Your task to perform on an android device: turn off notifications settings in the gmail app Image 0: 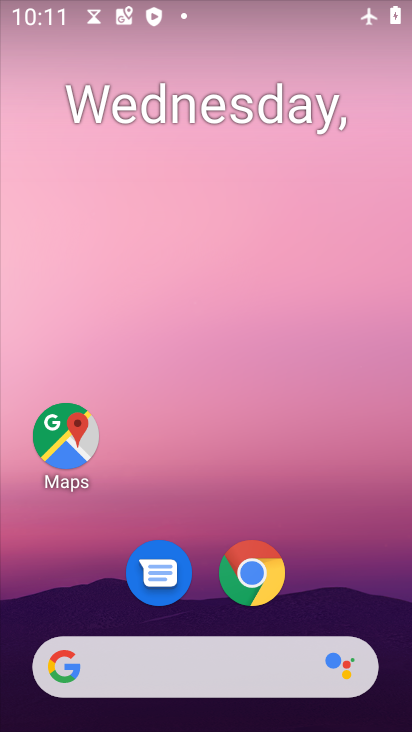
Step 0: drag from (336, 465) to (305, 238)
Your task to perform on an android device: turn off notifications settings in the gmail app Image 1: 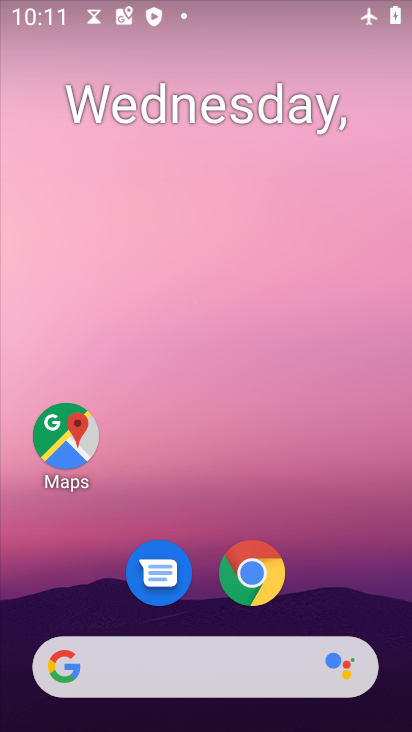
Step 1: drag from (301, 506) to (322, 120)
Your task to perform on an android device: turn off notifications settings in the gmail app Image 2: 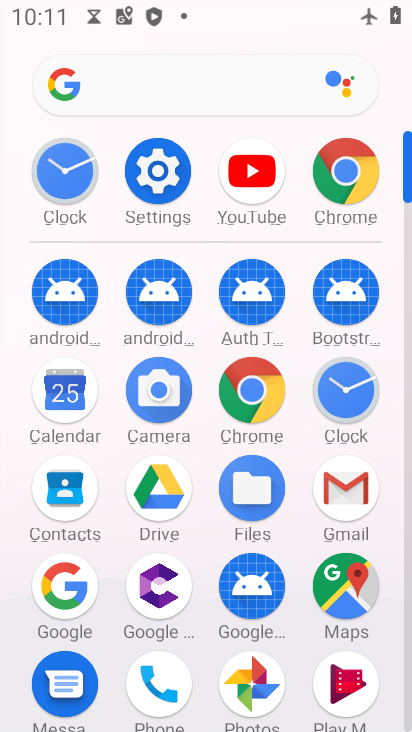
Step 2: click (342, 474)
Your task to perform on an android device: turn off notifications settings in the gmail app Image 3: 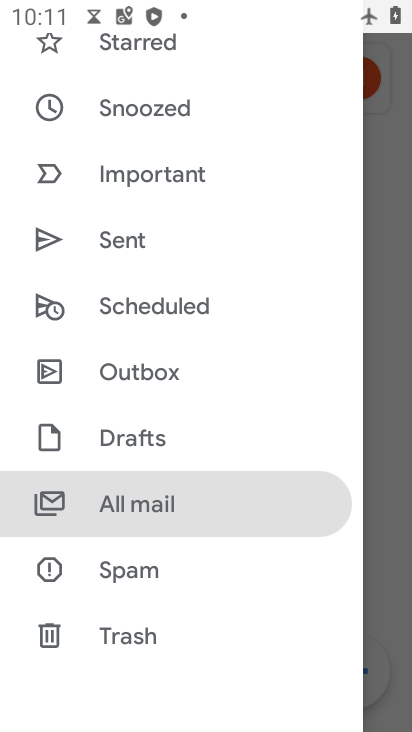
Step 3: drag from (125, 584) to (172, 171)
Your task to perform on an android device: turn off notifications settings in the gmail app Image 4: 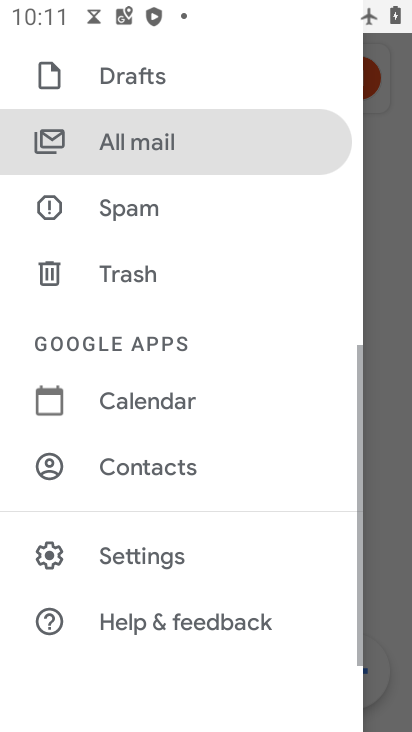
Step 4: click (152, 557)
Your task to perform on an android device: turn off notifications settings in the gmail app Image 5: 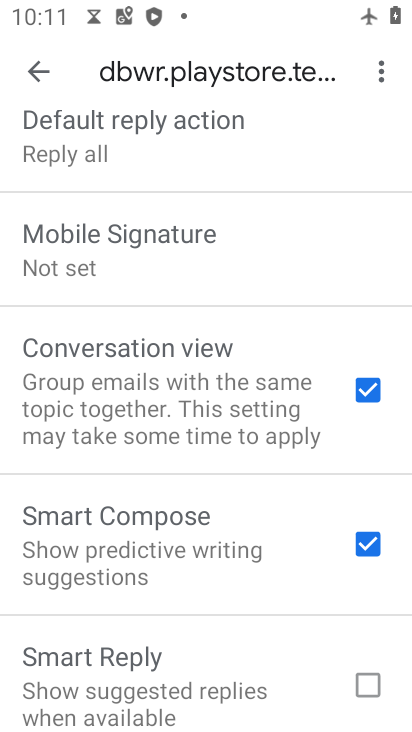
Step 5: drag from (207, 192) to (176, 571)
Your task to perform on an android device: turn off notifications settings in the gmail app Image 6: 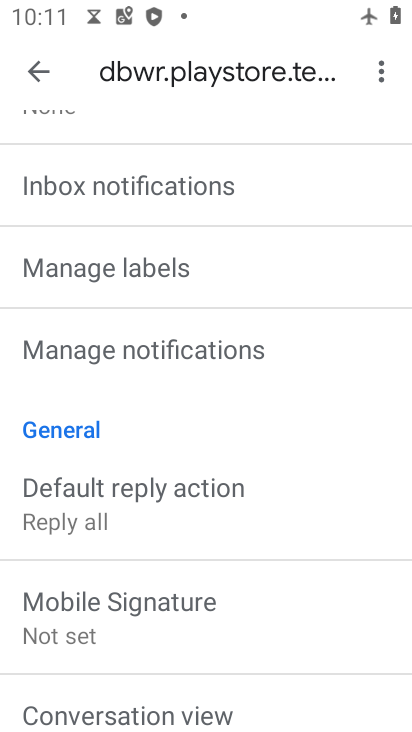
Step 6: drag from (162, 322) to (162, 523)
Your task to perform on an android device: turn off notifications settings in the gmail app Image 7: 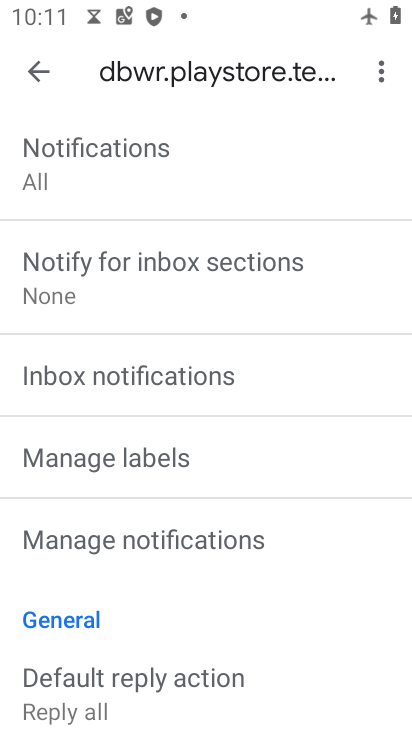
Step 7: click (130, 178)
Your task to perform on an android device: turn off notifications settings in the gmail app Image 8: 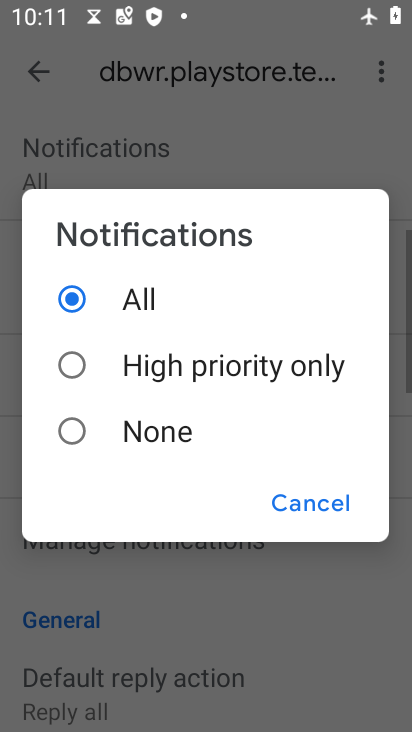
Step 8: click (128, 430)
Your task to perform on an android device: turn off notifications settings in the gmail app Image 9: 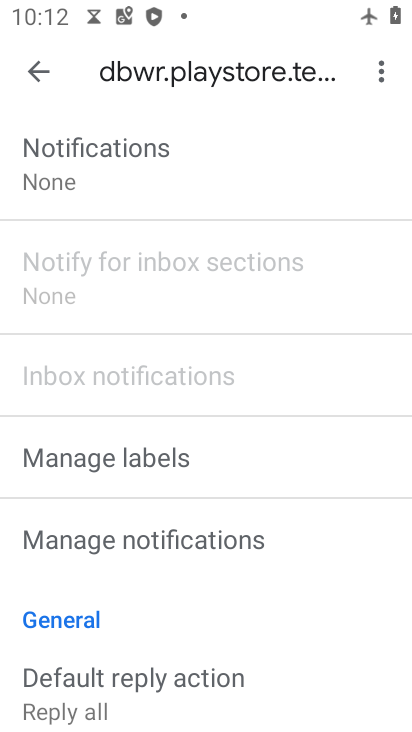
Step 9: task complete